Your task to perform on an android device: Open calendar and show me the fourth week of next month Image 0: 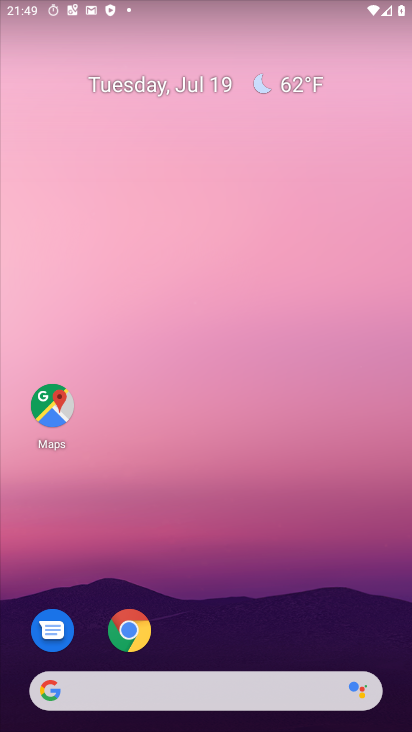
Step 0: drag from (20, 671) to (246, 91)
Your task to perform on an android device: Open calendar and show me the fourth week of next month Image 1: 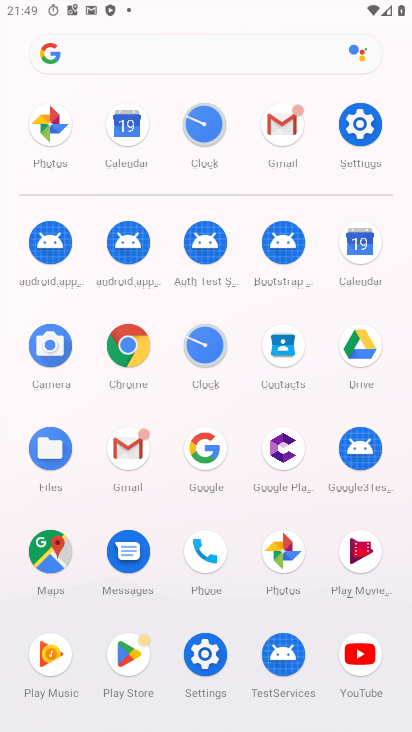
Step 1: click (355, 260)
Your task to perform on an android device: Open calendar and show me the fourth week of next month Image 2: 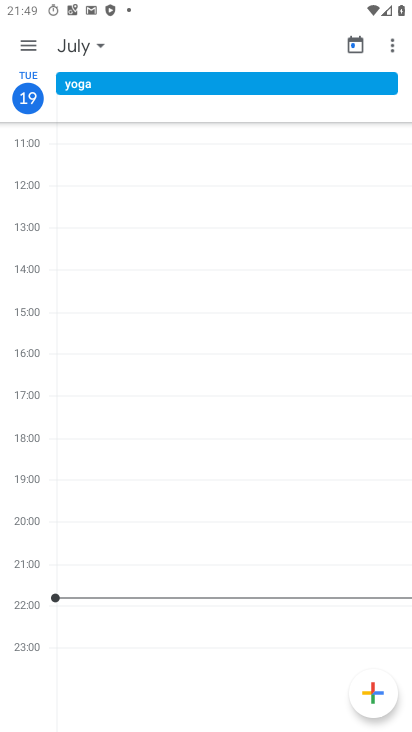
Step 2: click (80, 52)
Your task to perform on an android device: Open calendar and show me the fourth week of next month Image 3: 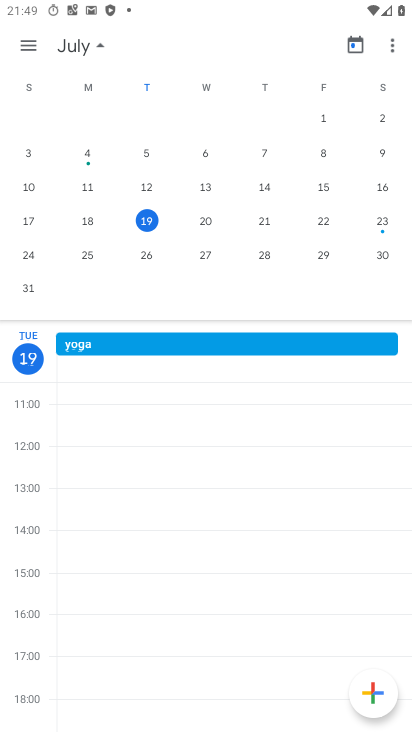
Step 3: drag from (353, 138) to (46, 279)
Your task to perform on an android device: Open calendar and show me the fourth week of next month Image 4: 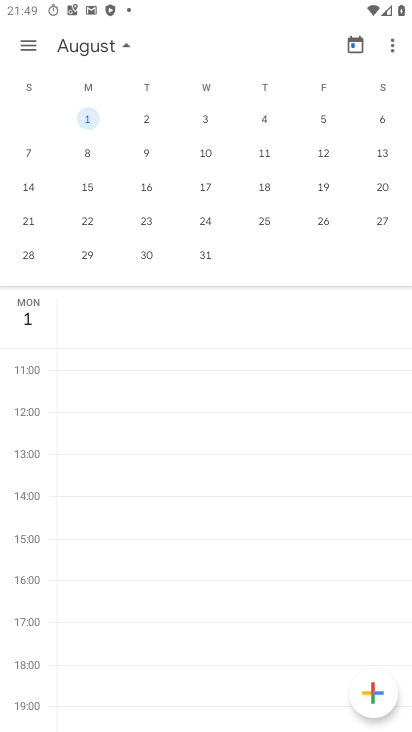
Step 4: click (91, 218)
Your task to perform on an android device: Open calendar and show me the fourth week of next month Image 5: 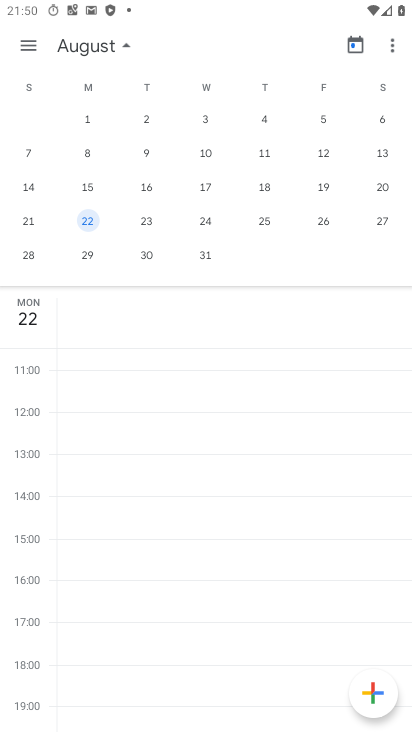
Step 5: task complete